Your task to perform on an android device: Open my contact list Image 0: 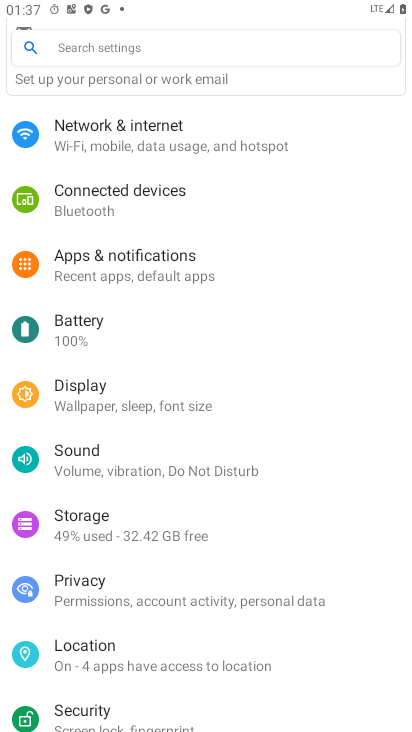
Step 0: press home button
Your task to perform on an android device: Open my contact list Image 1: 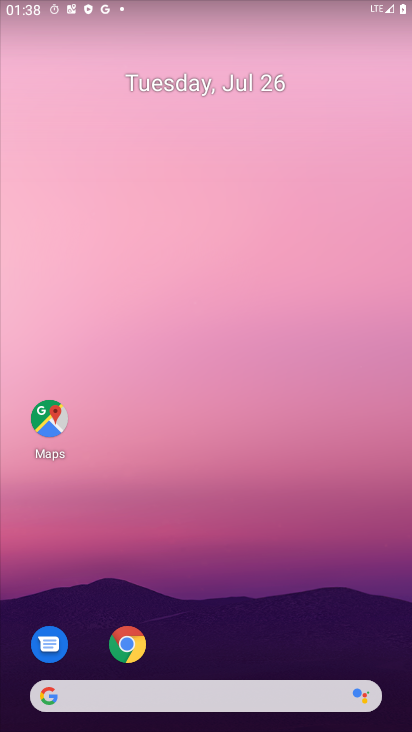
Step 1: drag from (212, 593) to (201, 4)
Your task to perform on an android device: Open my contact list Image 2: 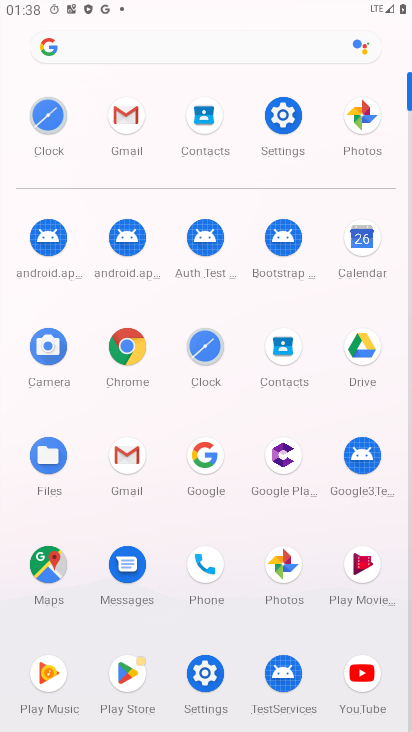
Step 2: click (279, 351)
Your task to perform on an android device: Open my contact list Image 3: 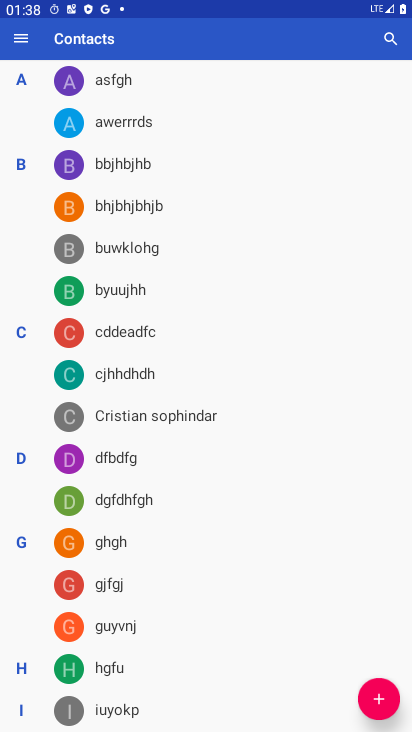
Step 3: task complete